Your task to perform on an android device: set an alarm Image 0: 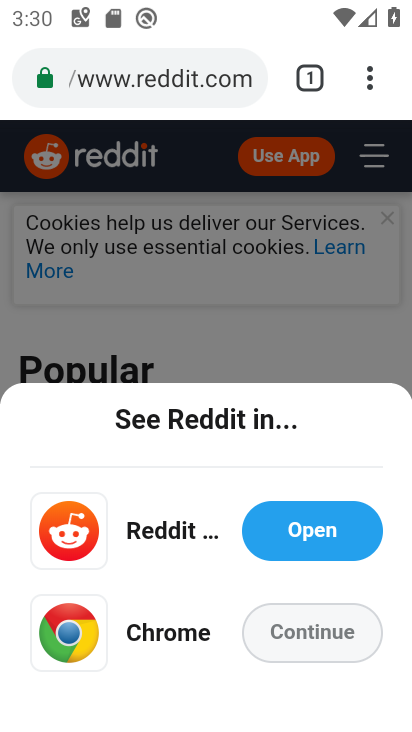
Step 0: press back button
Your task to perform on an android device: set an alarm Image 1: 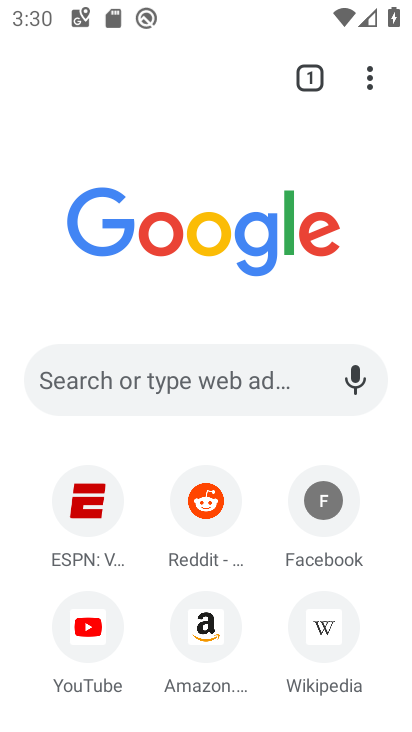
Step 1: press back button
Your task to perform on an android device: set an alarm Image 2: 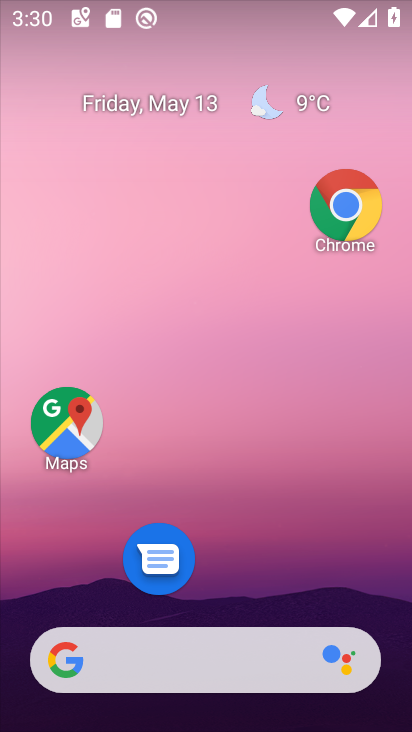
Step 2: click (265, 80)
Your task to perform on an android device: set an alarm Image 3: 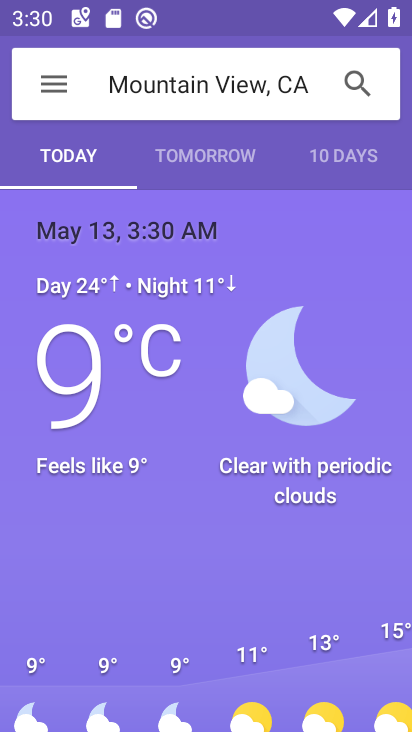
Step 3: press home button
Your task to perform on an android device: set an alarm Image 4: 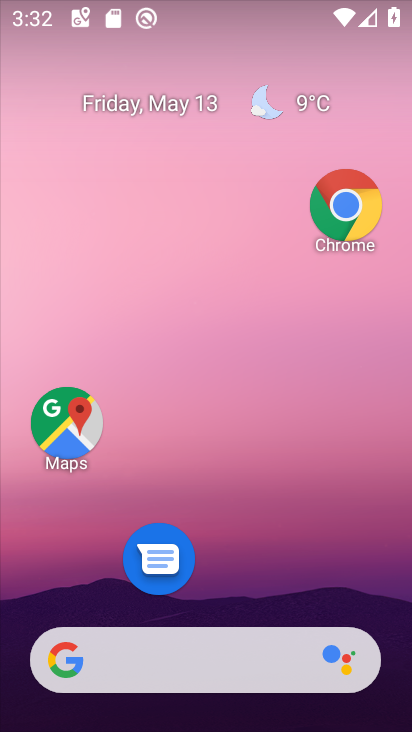
Step 4: drag from (275, 352) to (331, 5)
Your task to perform on an android device: set an alarm Image 5: 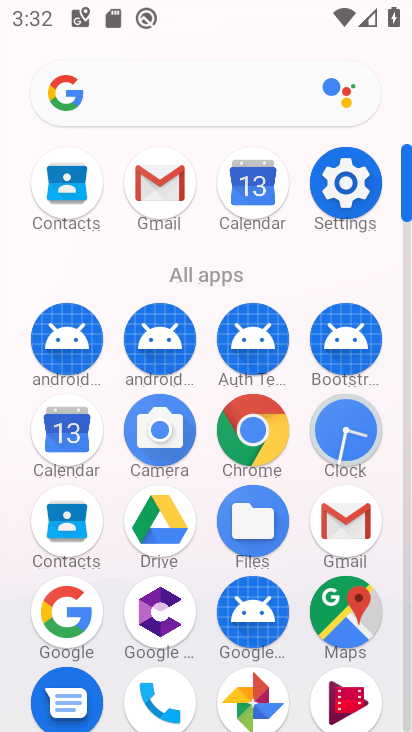
Step 5: click (329, 443)
Your task to perform on an android device: set an alarm Image 6: 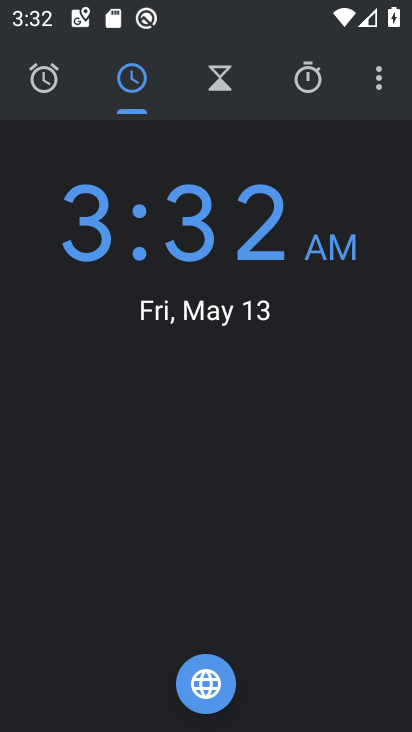
Step 6: click (40, 86)
Your task to perform on an android device: set an alarm Image 7: 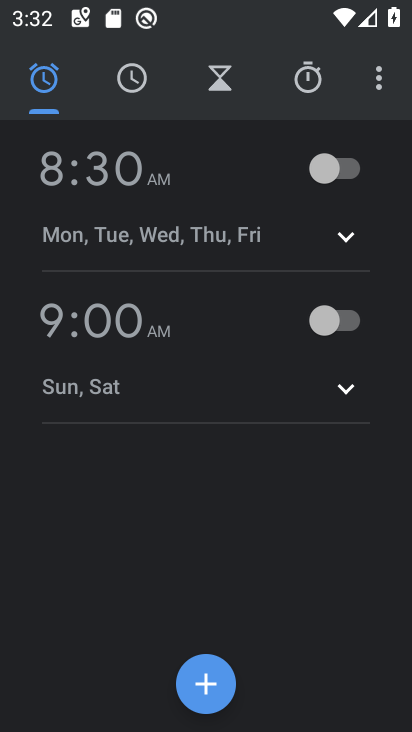
Step 7: click (336, 178)
Your task to perform on an android device: set an alarm Image 8: 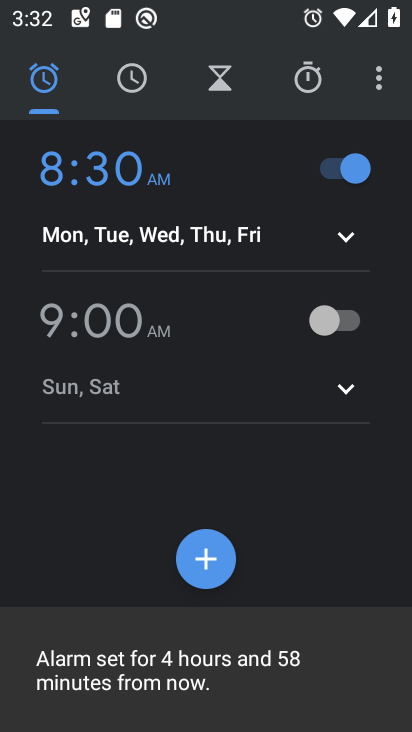
Step 8: task complete